Your task to perform on an android device: Open CNN.com Image 0: 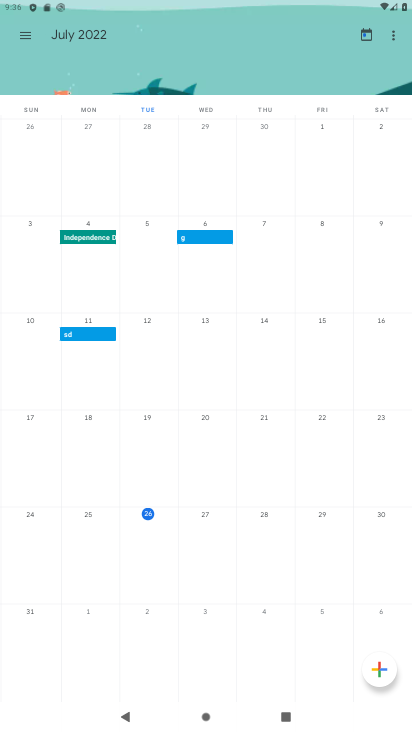
Step 0: press home button
Your task to perform on an android device: Open CNN.com Image 1: 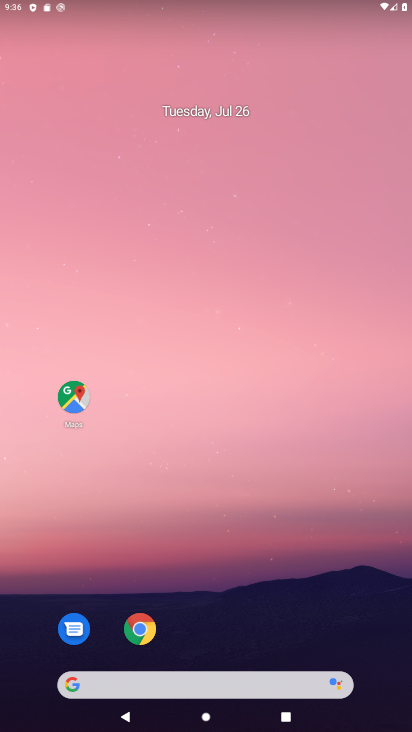
Step 1: click (243, 690)
Your task to perform on an android device: Open CNN.com Image 2: 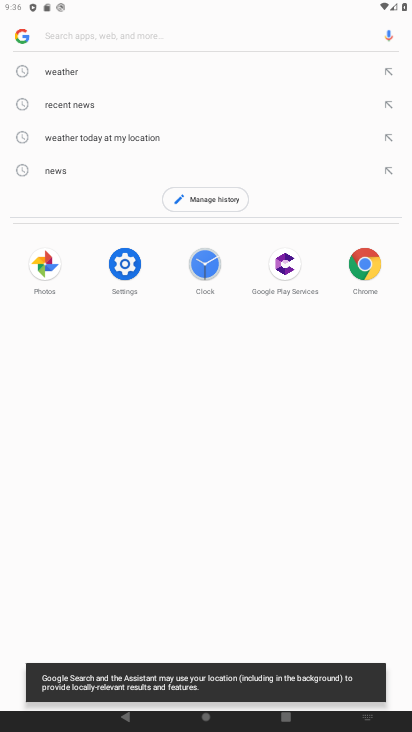
Step 2: type "cnn.com"
Your task to perform on an android device: Open CNN.com Image 3: 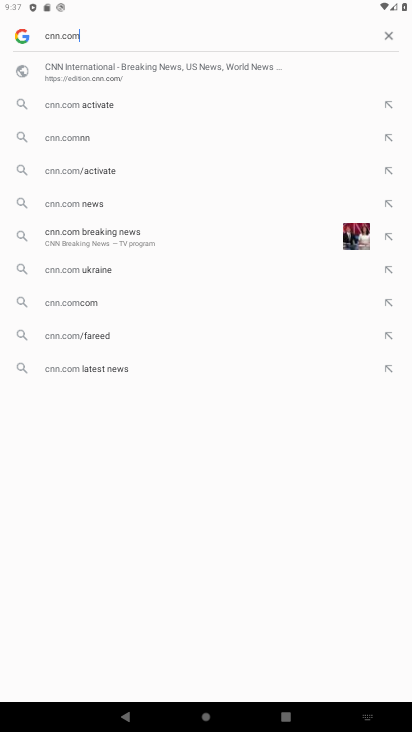
Step 3: click (207, 57)
Your task to perform on an android device: Open CNN.com Image 4: 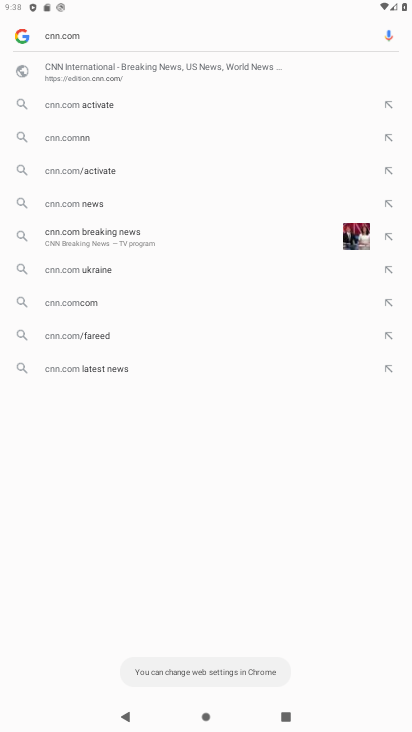
Step 4: task complete